Your task to perform on an android device: turn off sleep mode Image 0: 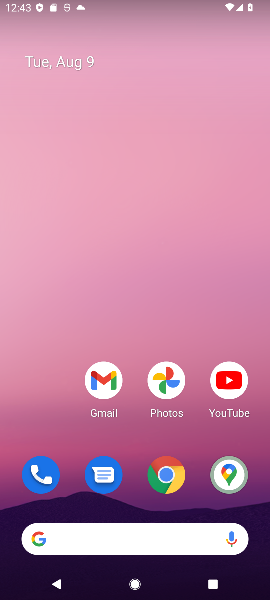
Step 0: drag from (128, 433) to (128, 17)
Your task to perform on an android device: turn off sleep mode Image 1: 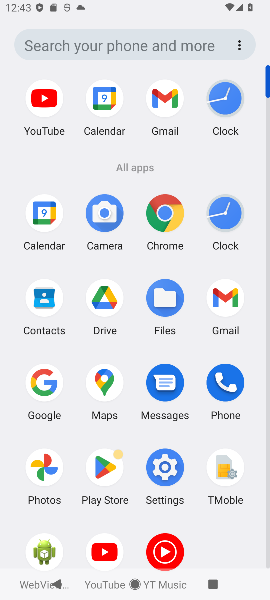
Step 1: click (159, 467)
Your task to perform on an android device: turn off sleep mode Image 2: 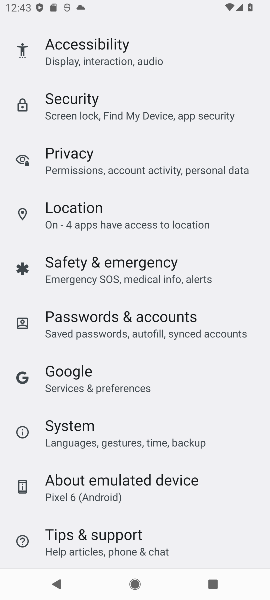
Step 2: drag from (126, 61) to (136, 369)
Your task to perform on an android device: turn off sleep mode Image 3: 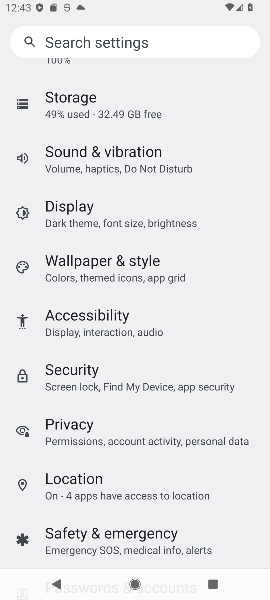
Step 3: click (98, 214)
Your task to perform on an android device: turn off sleep mode Image 4: 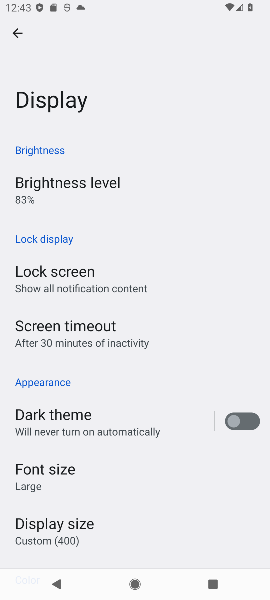
Step 4: task complete